Your task to perform on an android device: Open Chrome and go to settings Image 0: 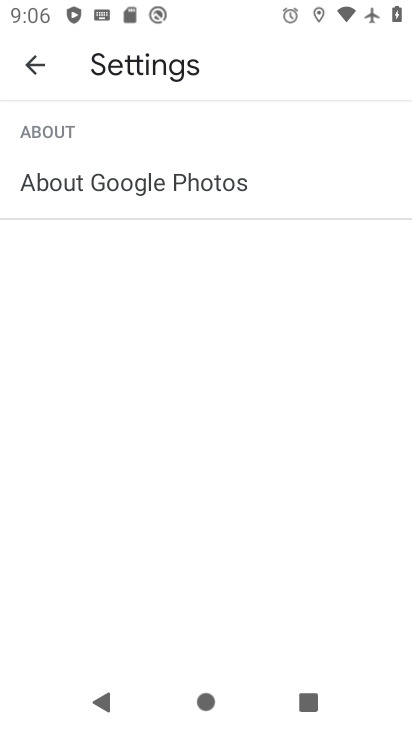
Step 0: press home button
Your task to perform on an android device: Open Chrome and go to settings Image 1: 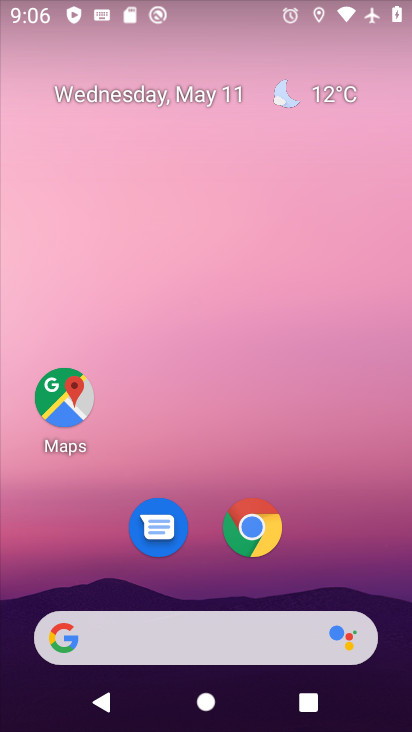
Step 1: click (249, 525)
Your task to perform on an android device: Open Chrome and go to settings Image 2: 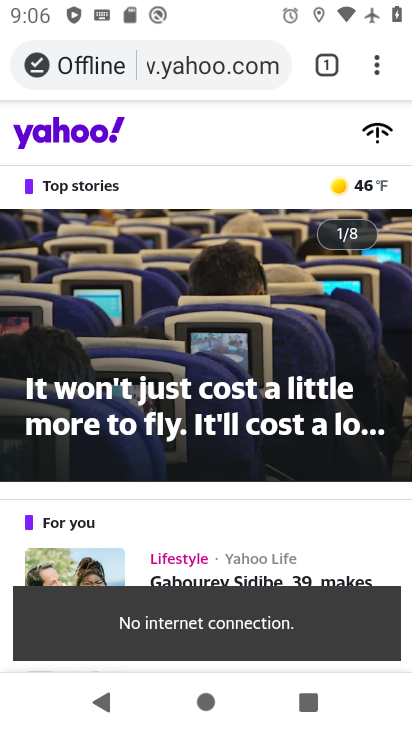
Step 2: task complete